Your task to perform on an android device: move a message to another label in the gmail app Image 0: 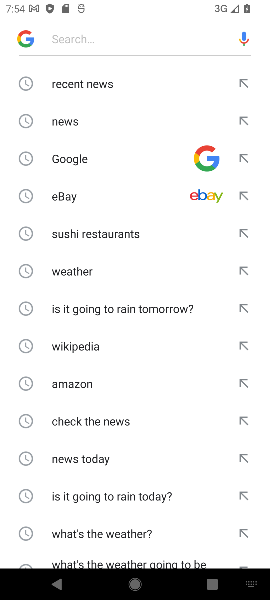
Step 0: press home button
Your task to perform on an android device: move a message to another label in the gmail app Image 1: 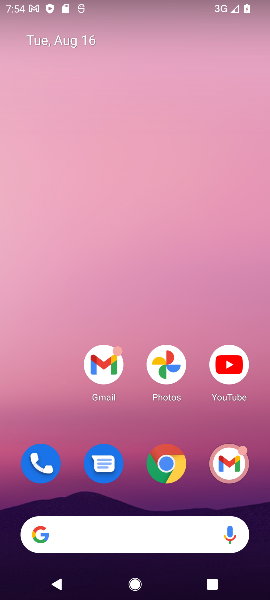
Step 1: click (101, 367)
Your task to perform on an android device: move a message to another label in the gmail app Image 2: 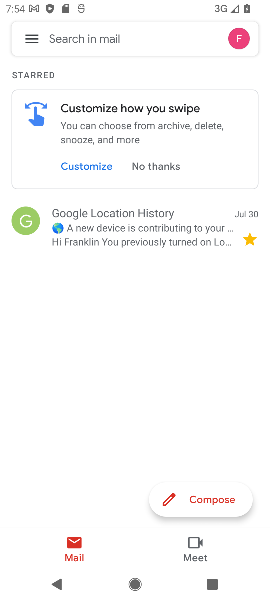
Step 2: click (31, 37)
Your task to perform on an android device: move a message to another label in the gmail app Image 3: 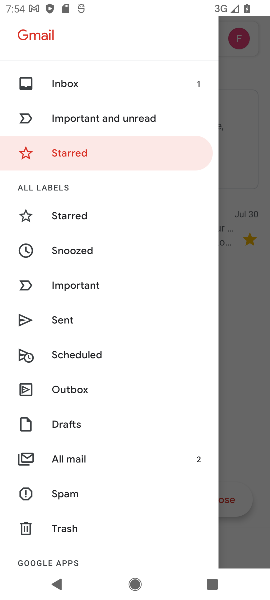
Step 3: click (88, 85)
Your task to perform on an android device: move a message to another label in the gmail app Image 4: 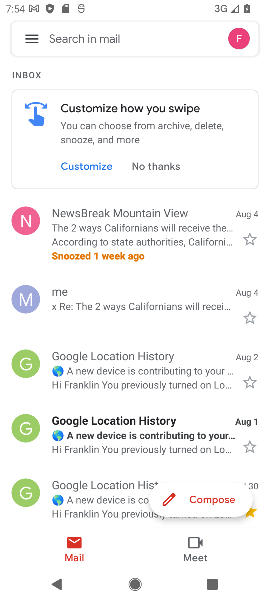
Step 4: click (22, 365)
Your task to perform on an android device: move a message to another label in the gmail app Image 5: 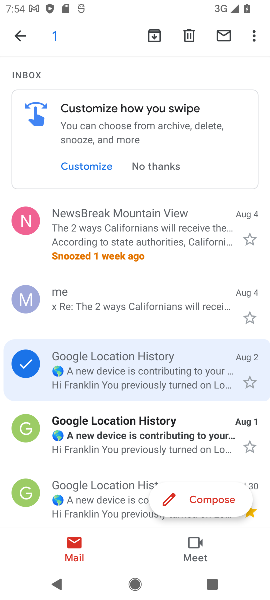
Step 5: click (247, 34)
Your task to perform on an android device: move a message to another label in the gmail app Image 6: 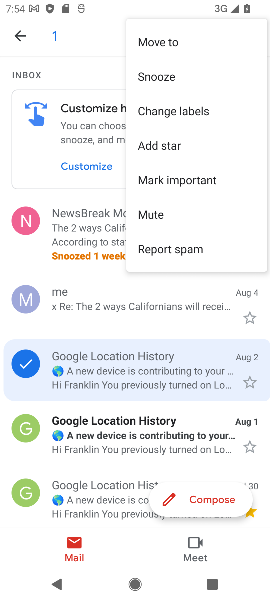
Step 6: click (177, 109)
Your task to perform on an android device: move a message to another label in the gmail app Image 7: 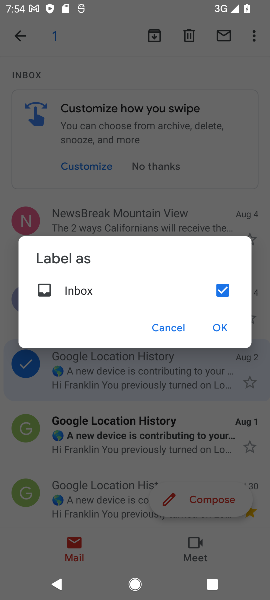
Step 7: click (211, 291)
Your task to perform on an android device: move a message to another label in the gmail app Image 8: 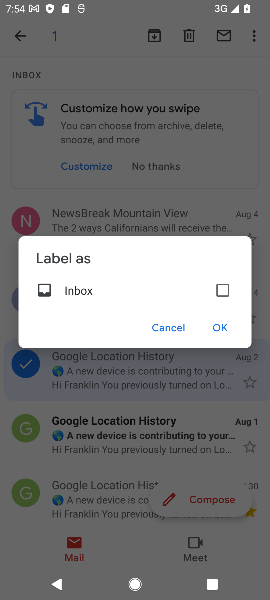
Step 8: click (221, 330)
Your task to perform on an android device: move a message to another label in the gmail app Image 9: 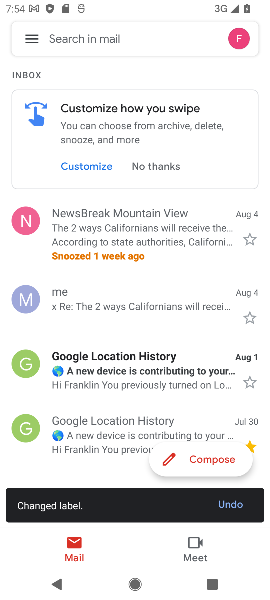
Step 9: task complete